Your task to perform on an android device: Open a new incognito tab in Chrome Image 0: 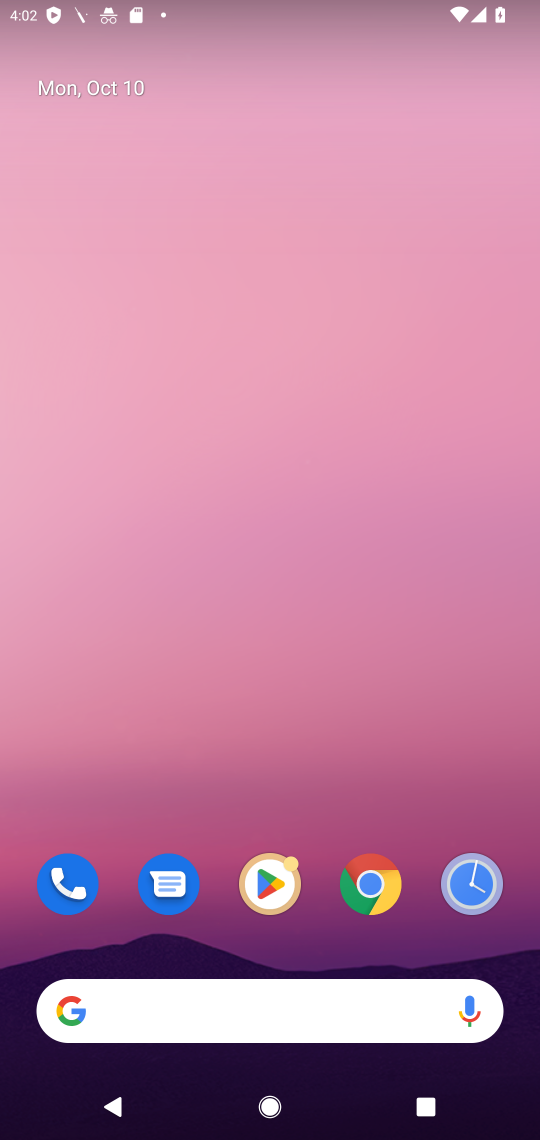
Step 0: click (377, 883)
Your task to perform on an android device: Open a new incognito tab in Chrome Image 1: 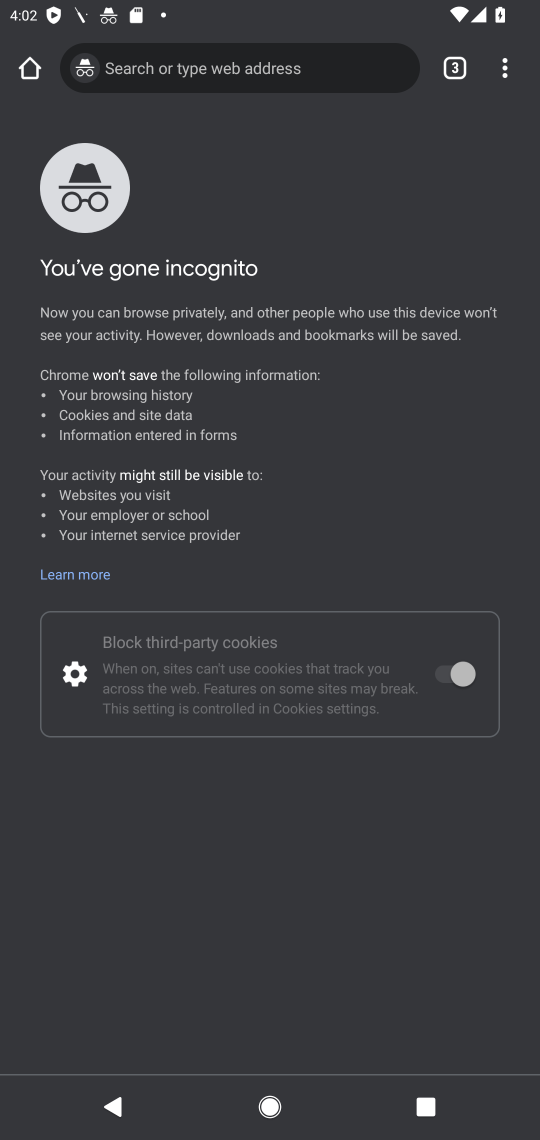
Step 1: task complete